Your task to perform on an android device: Search for a good pizza place on Maps Image 0: 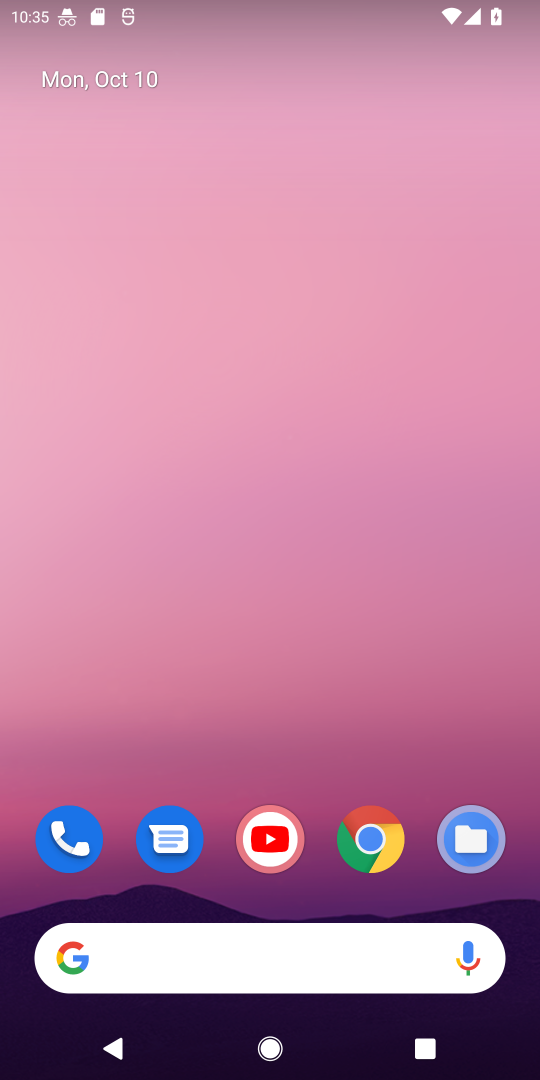
Step 0: drag from (309, 892) to (341, 222)
Your task to perform on an android device: Search for a good pizza place on Maps Image 1: 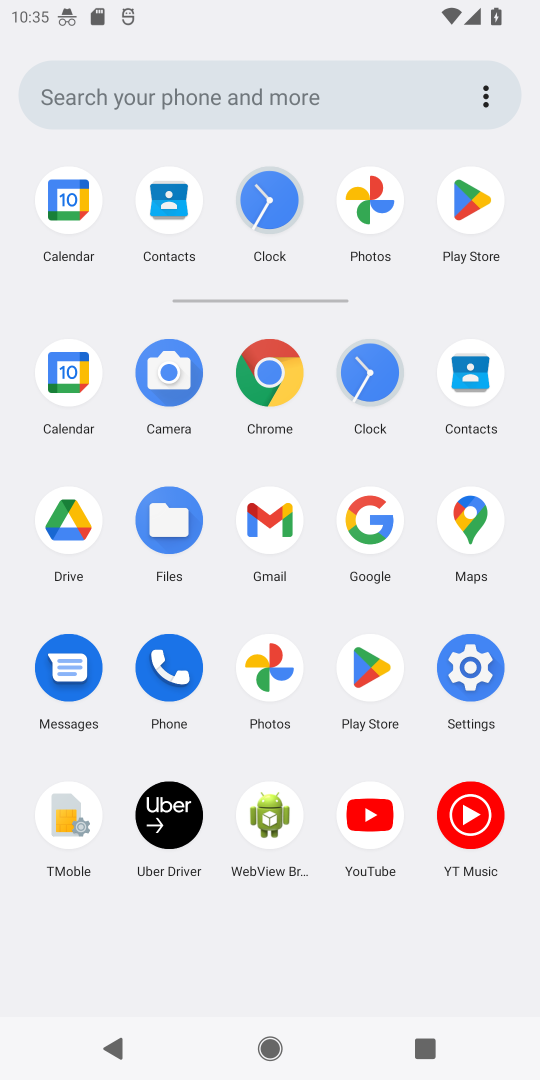
Step 1: click (476, 520)
Your task to perform on an android device: Search for a good pizza place on Maps Image 2: 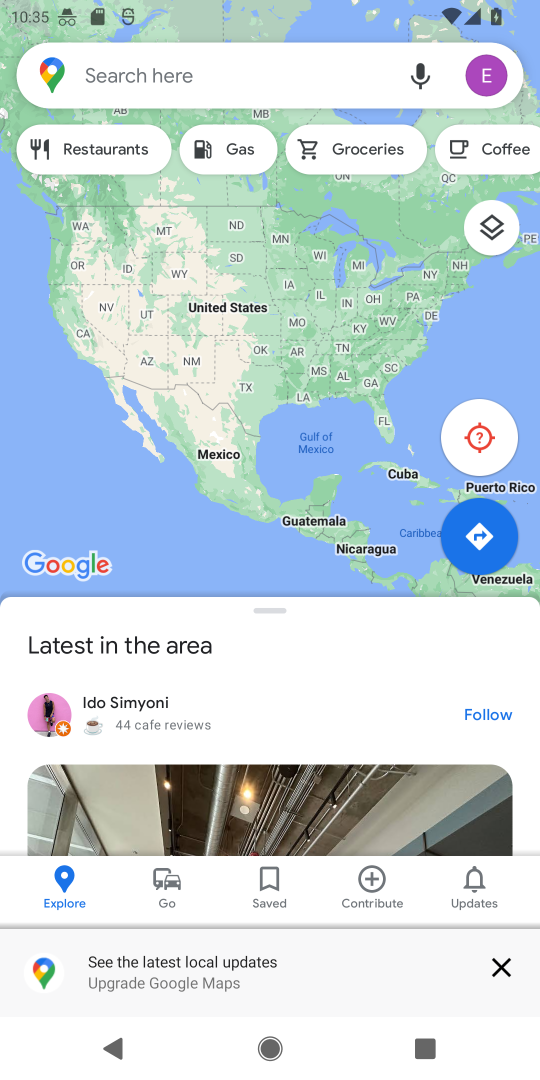
Step 2: click (225, 66)
Your task to perform on an android device: Search for a good pizza place on Maps Image 3: 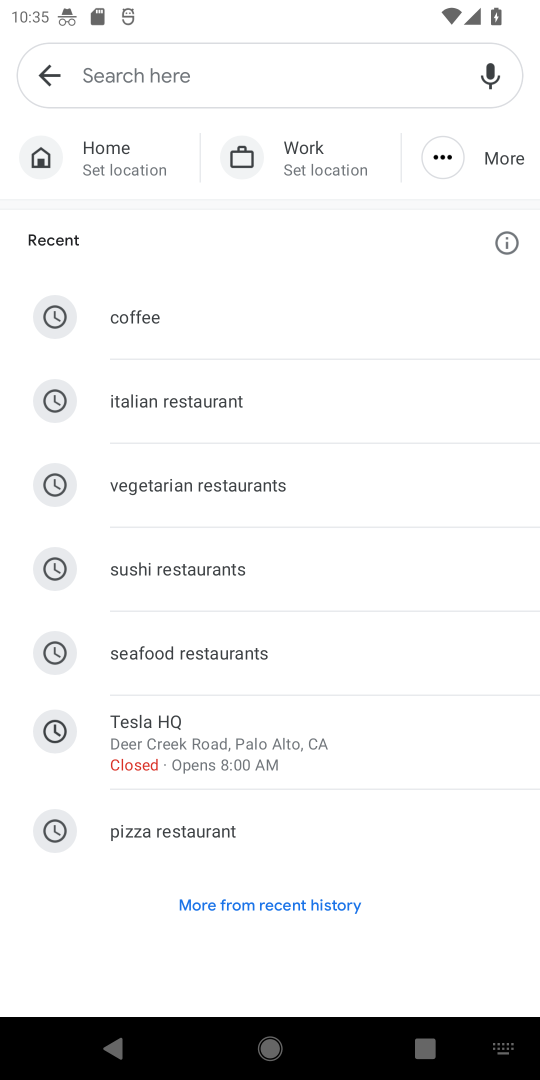
Step 3: type ""
Your task to perform on an android device: Search for a good pizza place on Maps Image 4: 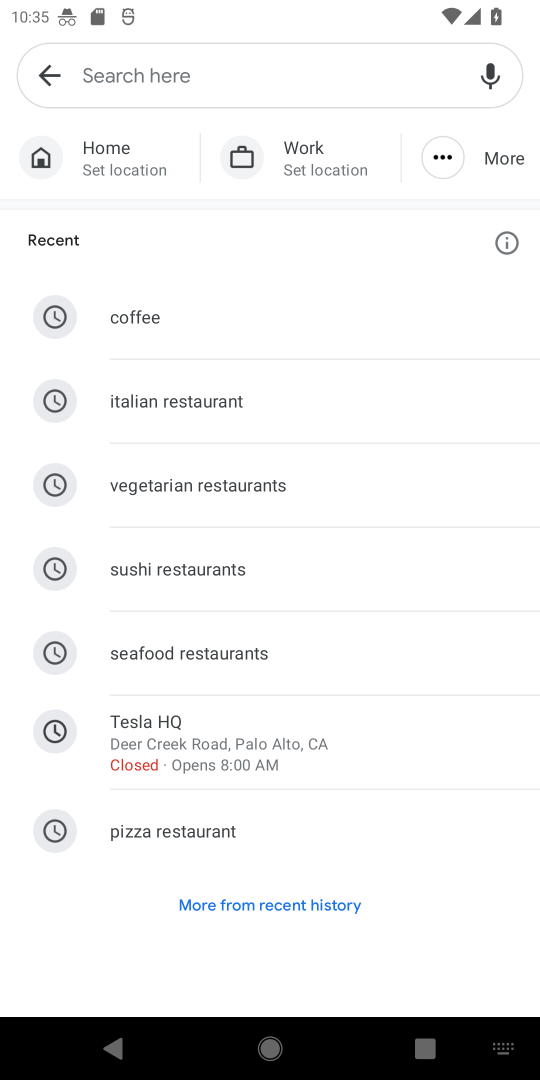
Step 4: type "a good pizza place "
Your task to perform on an android device: Search for a good pizza place on Maps Image 5: 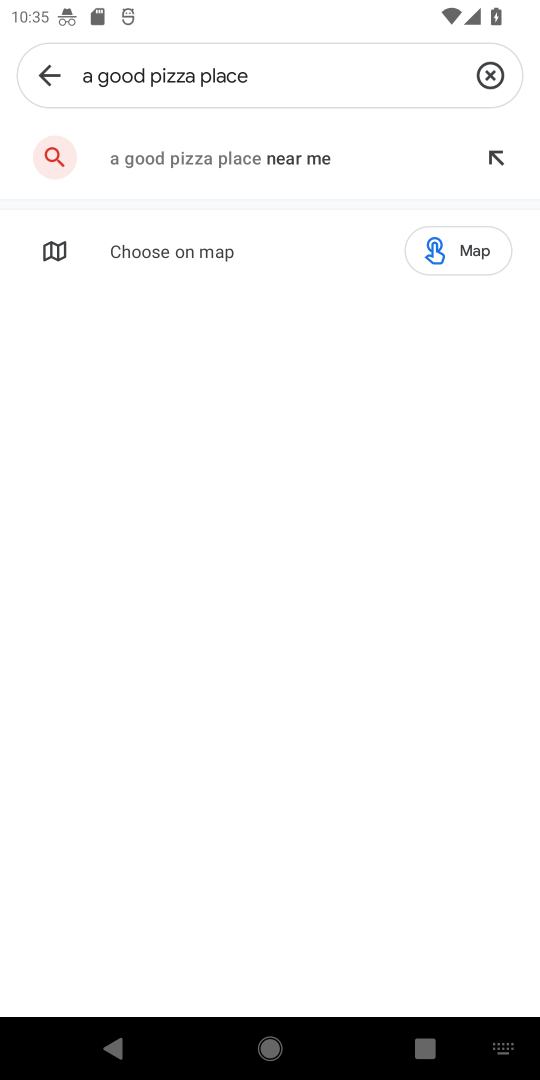
Step 5: press enter
Your task to perform on an android device: Search for a good pizza place on Maps Image 6: 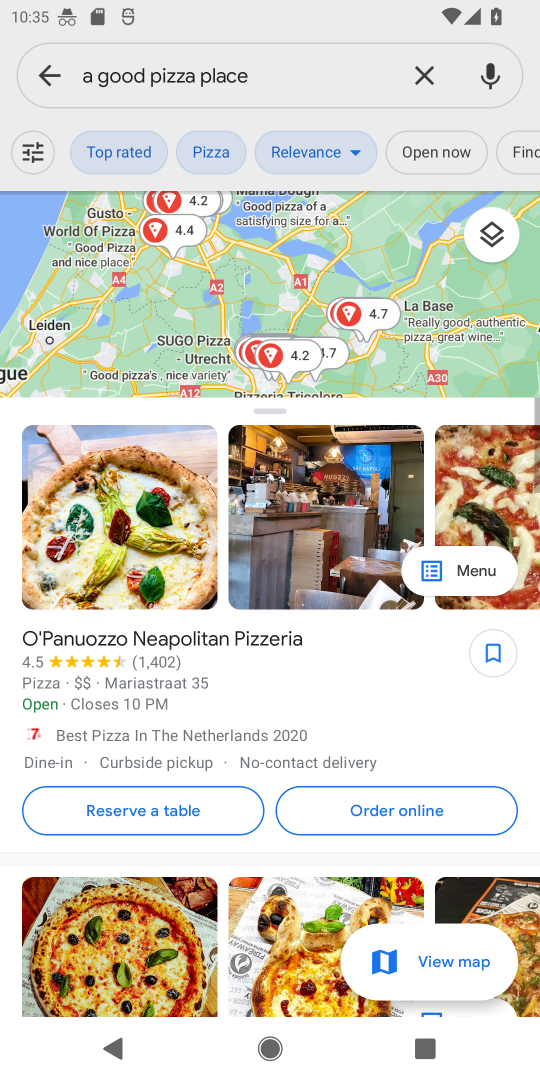
Step 6: task complete